Your task to perform on an android device: find photos in the google photos app Image 0: 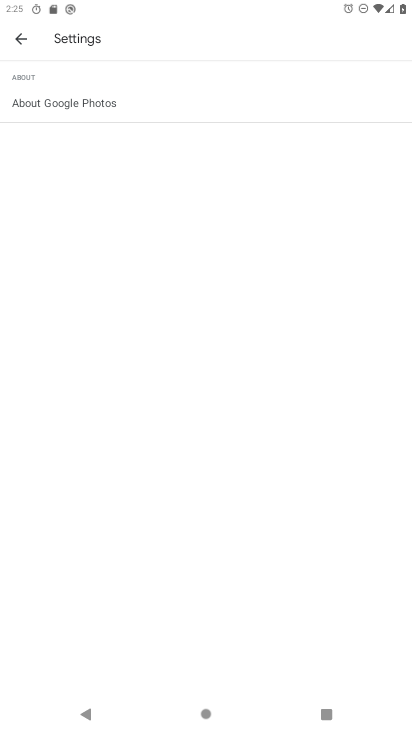
Step 0: press home button
Your task to perform on an android device: find photos in the google photos app Image 1: 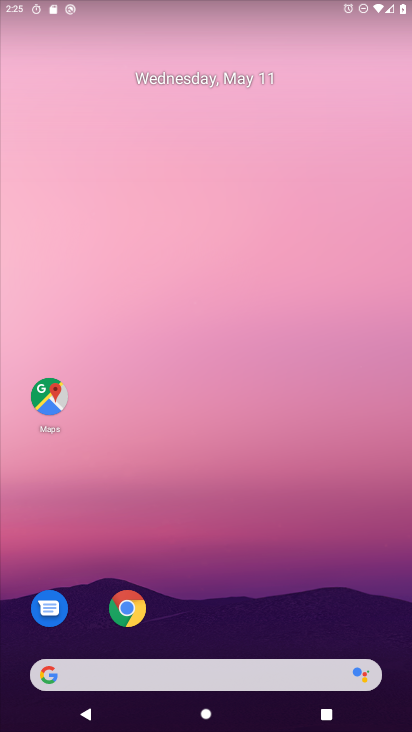
Step 1: drag from (228, 588) to (324, 0)
Your task to perform on an android device: find photos in the google photos app Image 2: 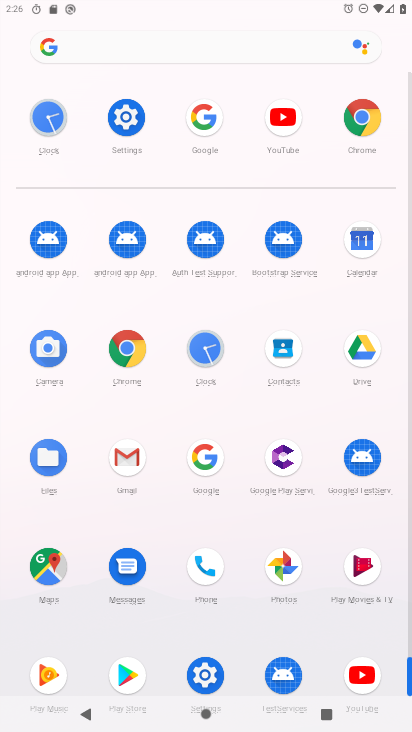
Step 2: drag from (205, 572) to (268, 333)
Your task to perform on an android device: find photos in the google photos app Image 3: 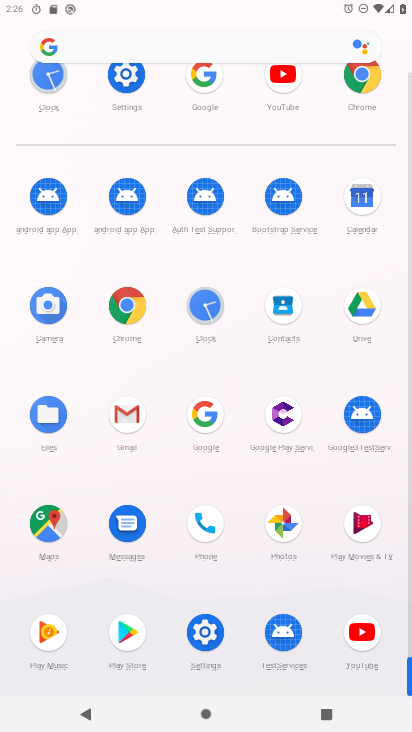
Step 3: click (286, 533)
Your task to perform on an android device: find photos in the google photos app Image 4: 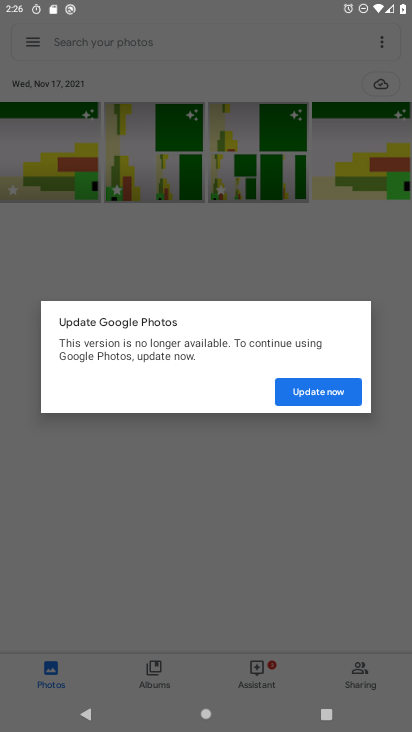
Step 4: task complete